Your task to perform on an android device: Search for seafood restaurants on Google Maps Image 0: 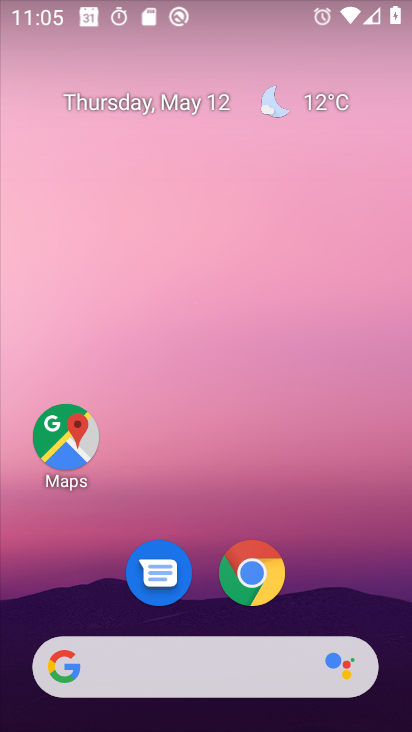
Step 0: click (63, 415)
Your task to perform on an android device: Search for seafood restaurants on Google Maps Image 1: 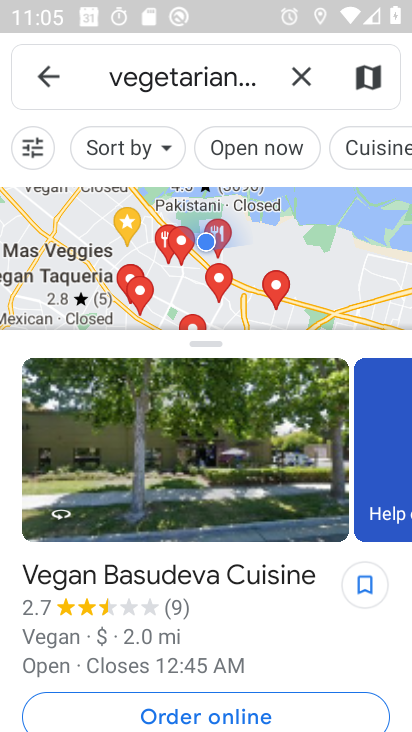
Step 1: click (301, 76)
Your task to perform on an android device: Search for seafood restaurants on Google Maps Image 2: 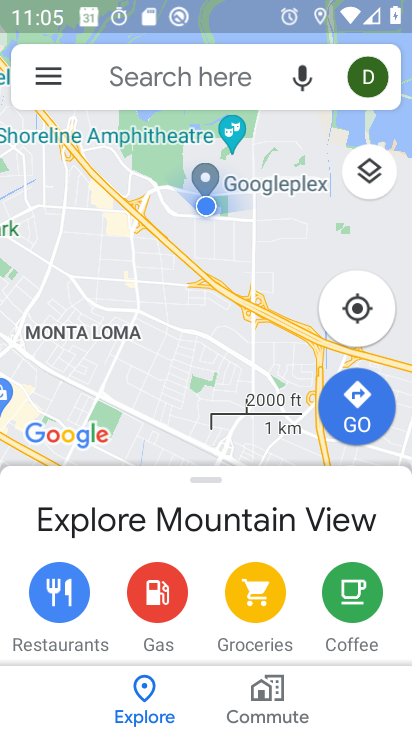
Step 2: click (130, 75)
Your task to perform on an android device: Search for seafood restaurants on Google Maps Image 3: 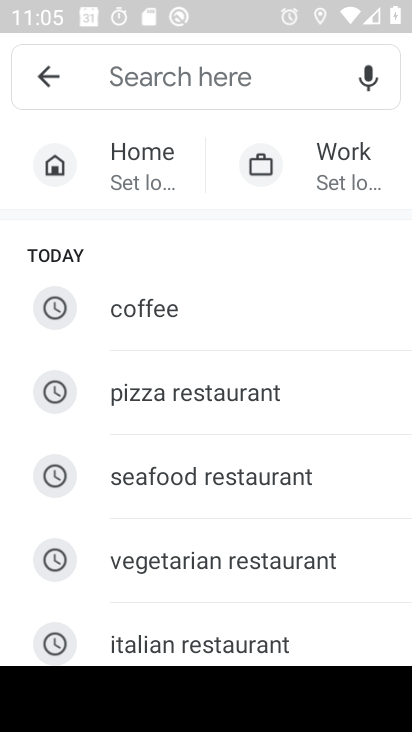
Step 3: type "seafood restaurants"
Your task to perform on an android device: Search for seafood restaurants on Google Maps Image 4: 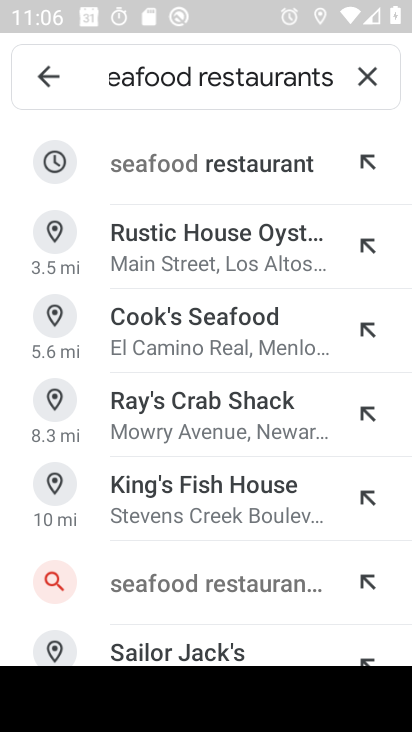
Step 4: click (237, 164)
Your task to perform on an android device: Search for seafood restaurants on Google Maps Image 5: 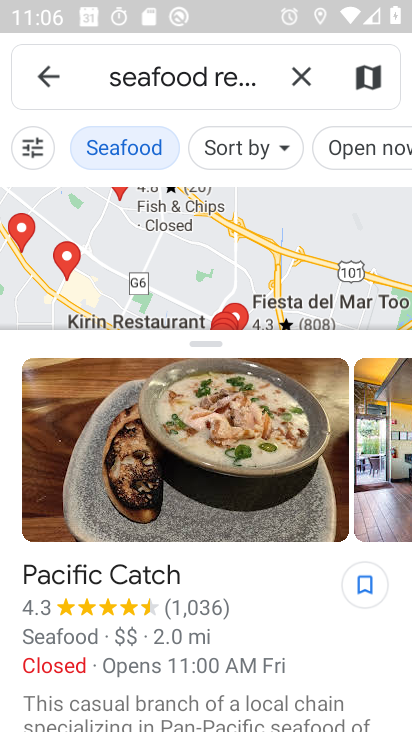
Step 5: task complete